Your task to perform on an android device: open sync settings in chrome Image 0: 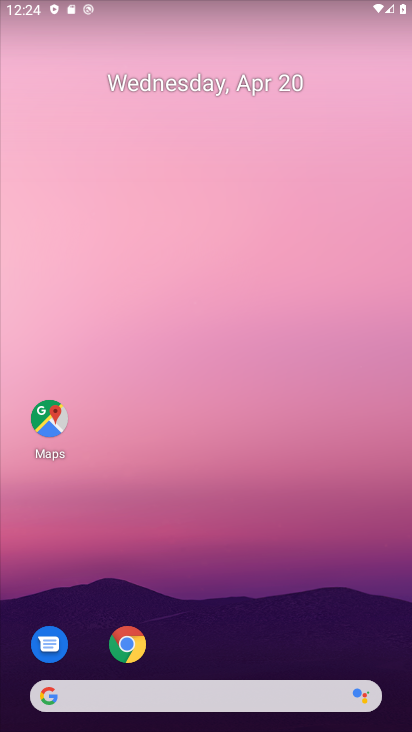
Step 0: click (138, 644)
Your task to perform on an android device: open sync settings in chrome Image 1: 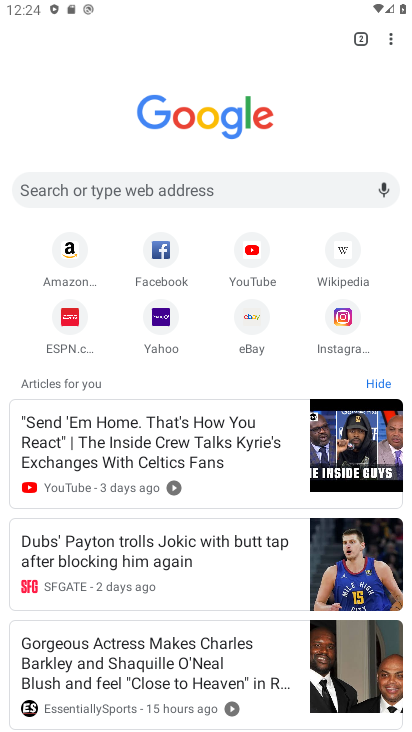
Step 1: click (385, 30)
Your task to perform on an android device: open sync settings in chrome Image 2: 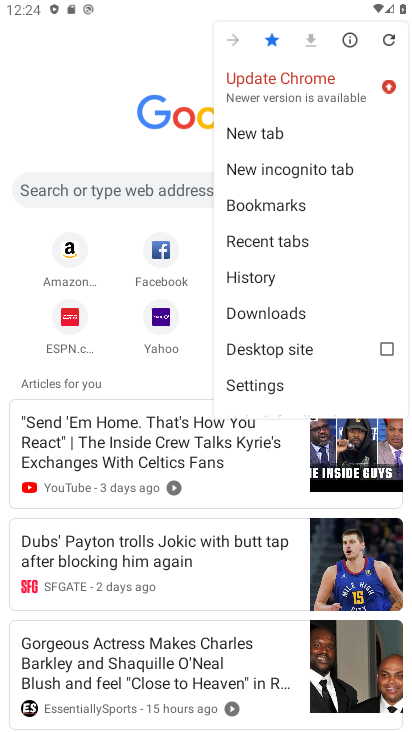
Step 2: click (280, 378)
Your task to perform on an android device: open sync settings in chrome Image 3: 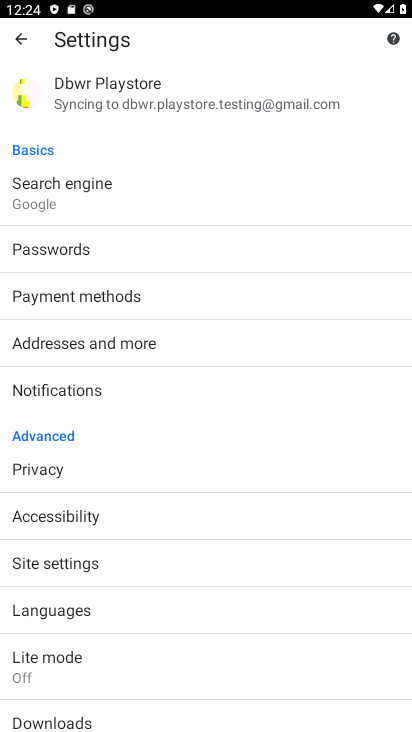
Step 3: click (157, 95)
Your task to perform on an android device: open sync settings in chrome Image 4: 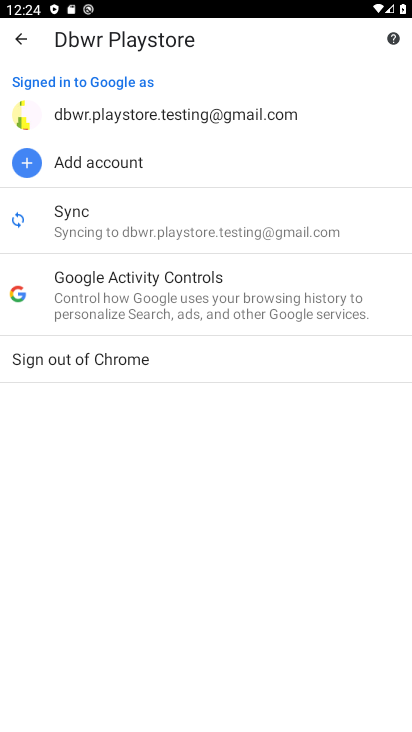
Step 4: click (129, 216)
Your task to perform on an android device: open sync settings in chrome Image 5: 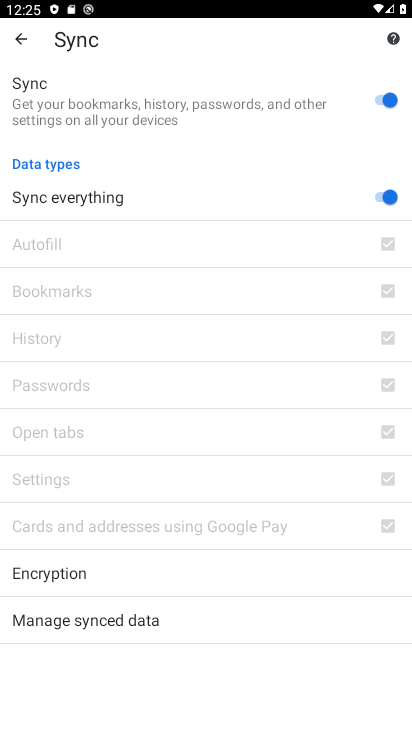
Step 5: task complete